Your task to perform on an android device: turn off location Image 0: 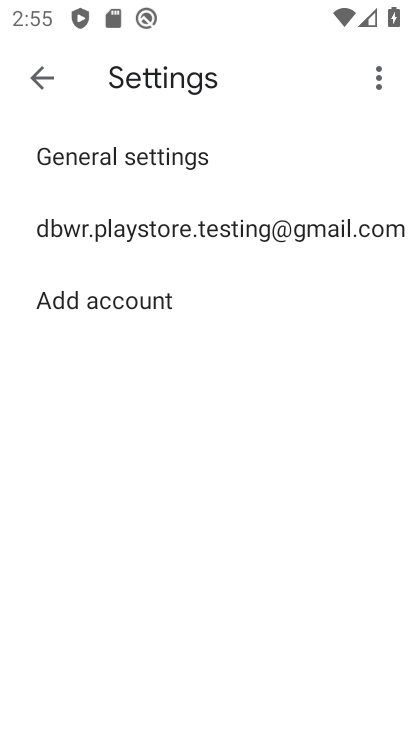
Step 0: press home button
Your task to perform on an android device: turn off location Image 1: 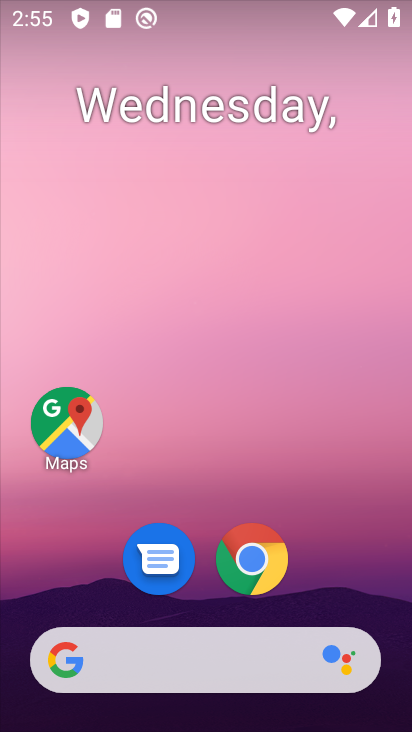
Step 1: drag from (342, 539) to (346, 130)
Your task to perform on an android device: turn off location Image 2: 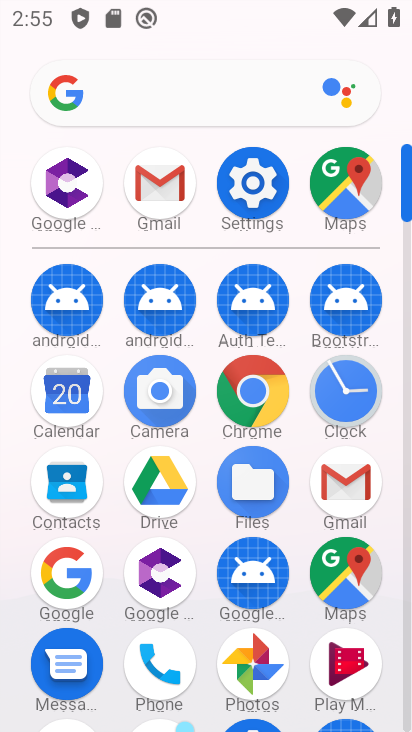
Step 2: click (266, 193)
Your task to perform on an android device: turn off location Image 3: 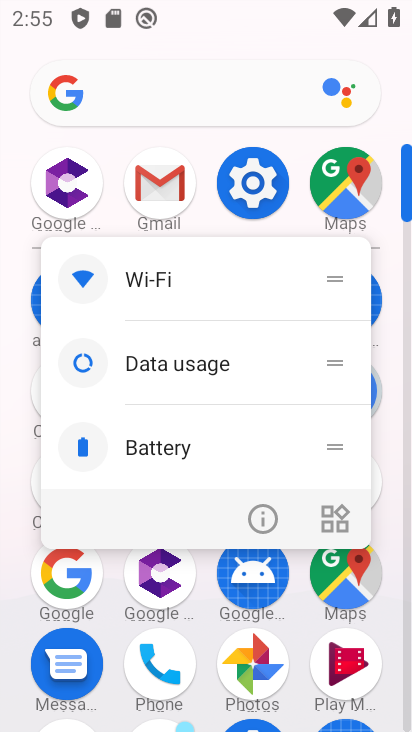
Step 3: click (265, 190)
Your task to perform on an android device: turn off location Image 4: 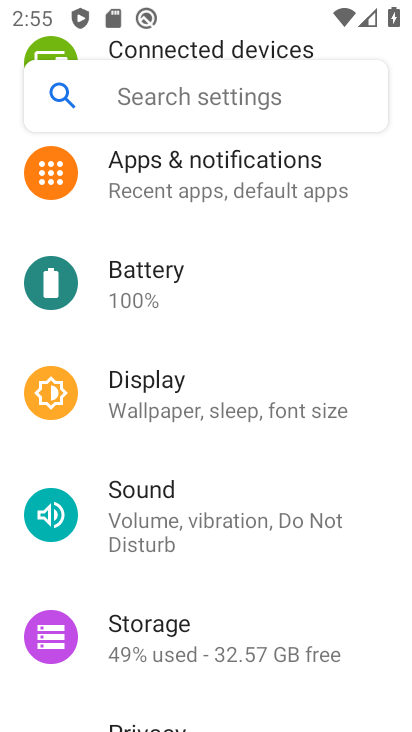
Step 4: drag from (285, 571) to (311, 252)
Your task to perform on an android device: turn off location Image 5: 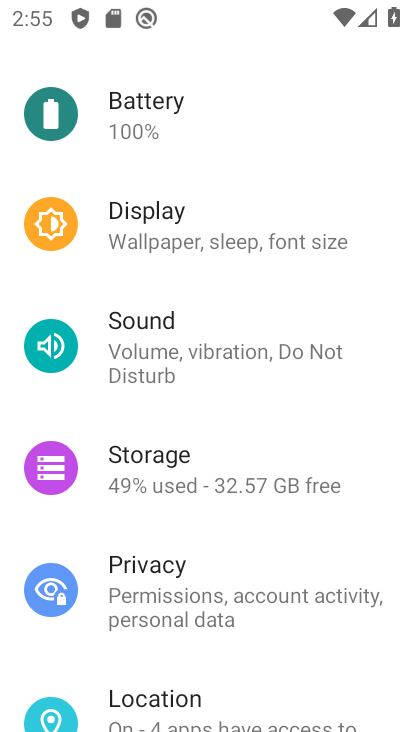
Step 5: drag from (234, 649) to (271, 296)
Your task to perform on an android device: turn off location Image 6: 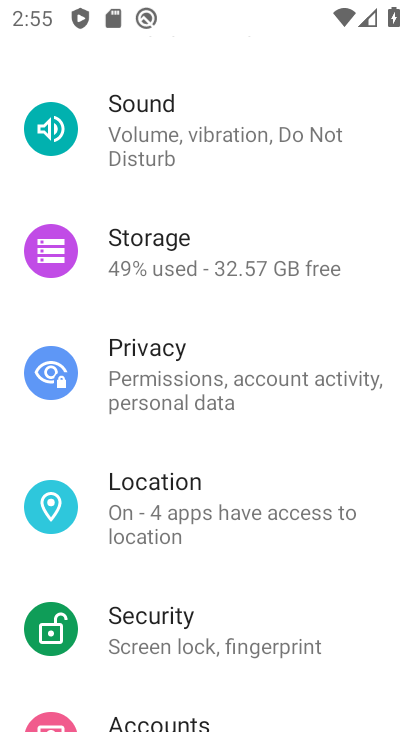
Step 6: click (189, 511)
Your task to perform on an android device: turn off location Image 7: 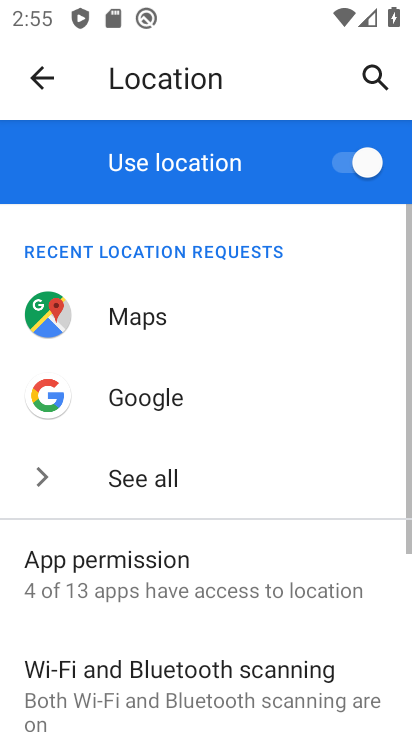
Step 7: click (340, 164)
Your task to perform on an android device: turn off location Image 8: 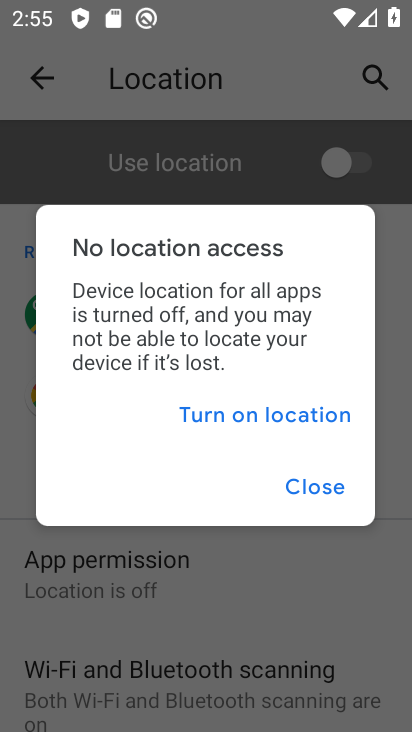
Step 8: task complete